Your task to perform on an android device: Open accessibility settings Image 0: 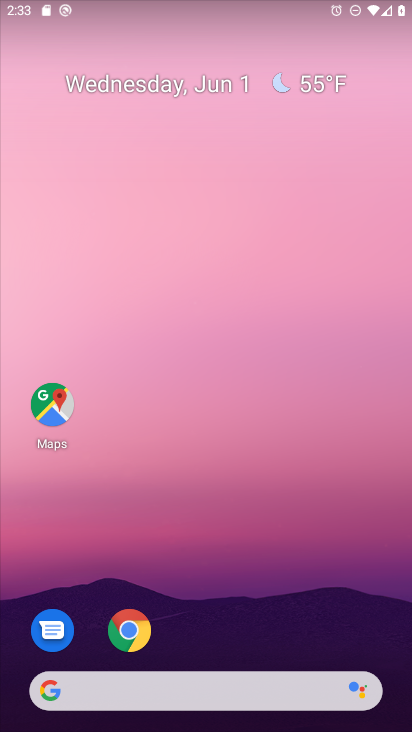
Step 0: drag from (124, 456) to (165, 58)
Your task to perform on an android device: Open accessibility settings Image 1: 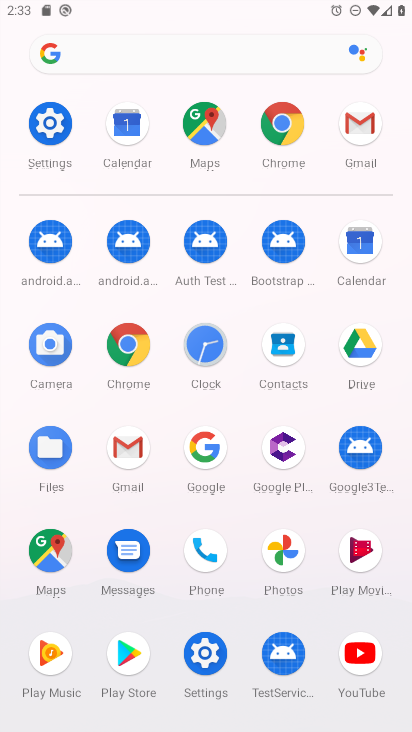
Step 1: click (50, 110)
Your task to perform on an android device: Open accessibility settings Image 2: 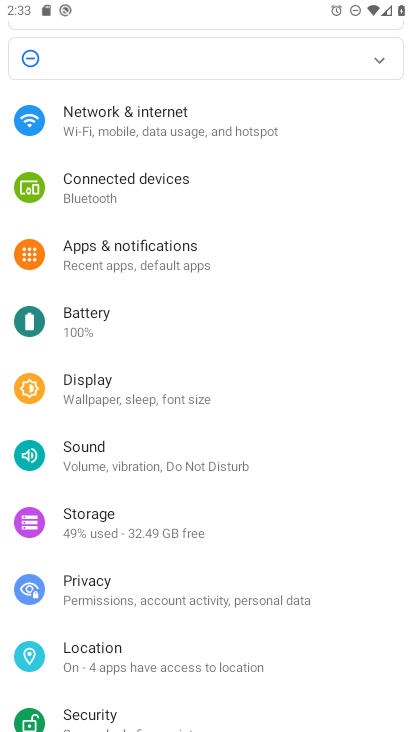
Step 2: drag from (220, 685) to (229, 21)
Your task to perform on an android device: Open accessibility settings Image 3: 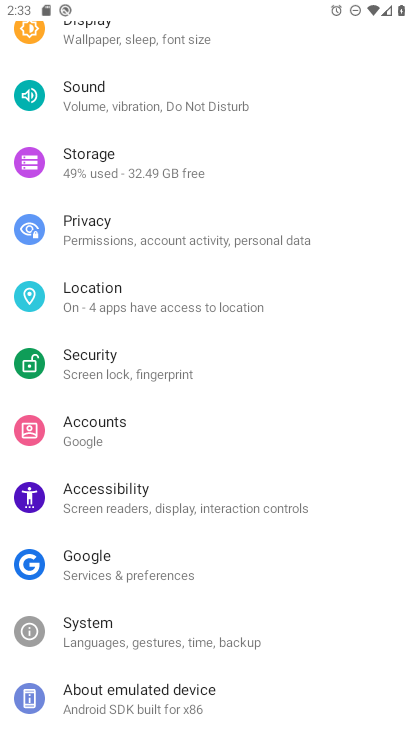
Step 3: click (165, 504)
Your task to perform on an android device: Open accessibility settings Image 4: 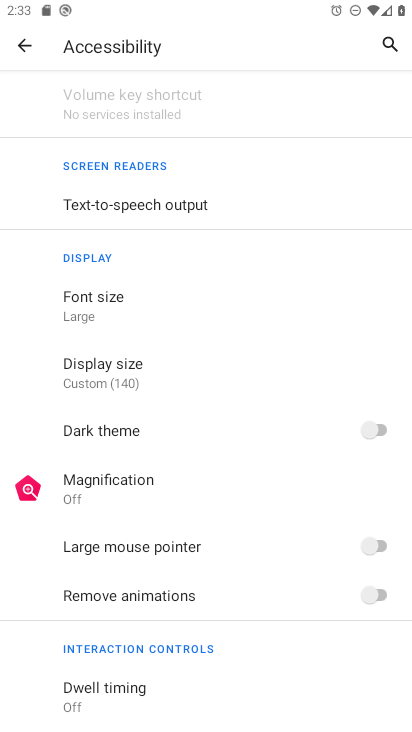
Step 4: task complete